Your task to perform on an android device: change the clock display to show seconds Image 0: 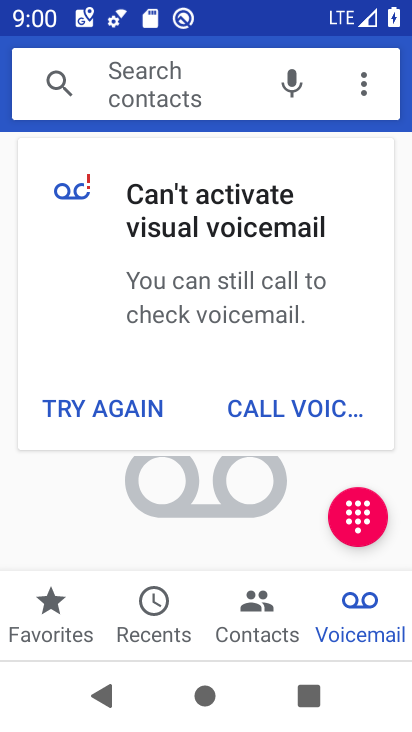
Step 0: drag from (217, 627) to (279, 90)
Your task to perform on an android device: change the clock display to show seconds Image 1: 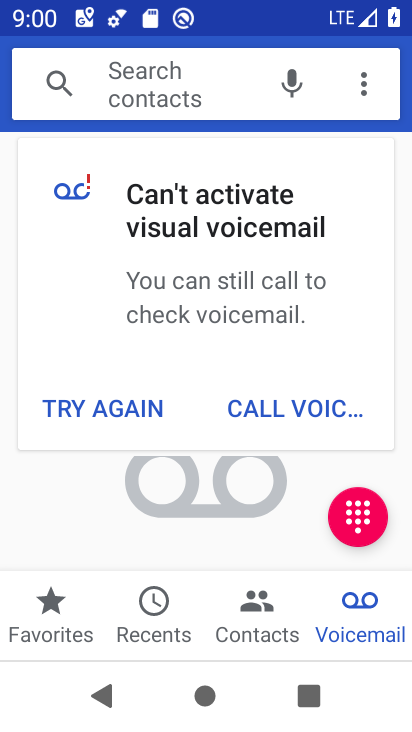
Step 1: press home button
Your task to perform on an android device: change the clock display to show seconds Image 2: 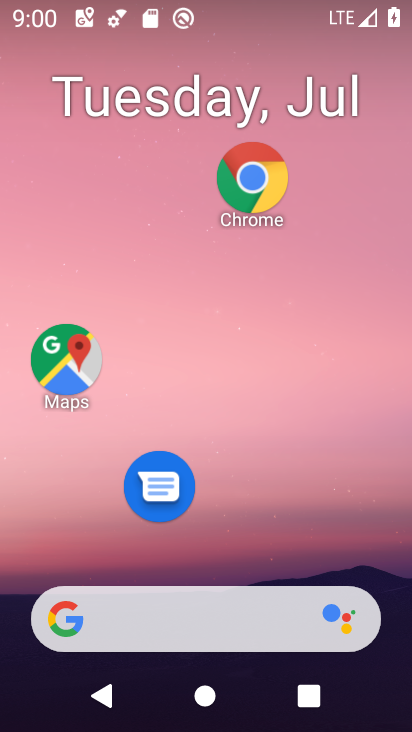
Step 2: drag from (366, 117) to (326, 13)
Your task to perform on an android device: change the clock display to show seconds Image 3: 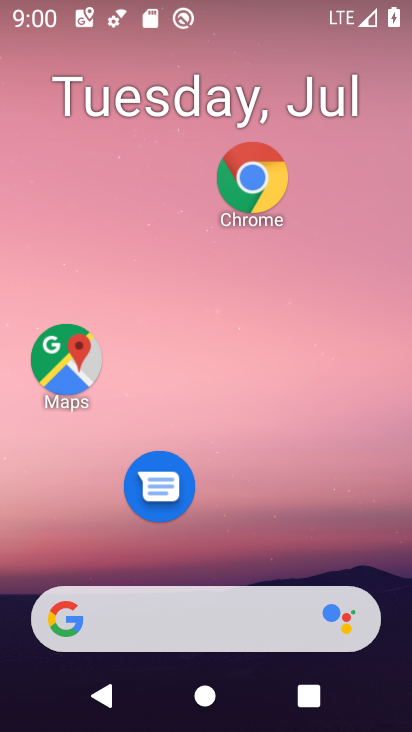
Step 3: drag from (142, 494) to (332, 9)
Your task to perform on an android device: change the clock display to show seconds Image 4: 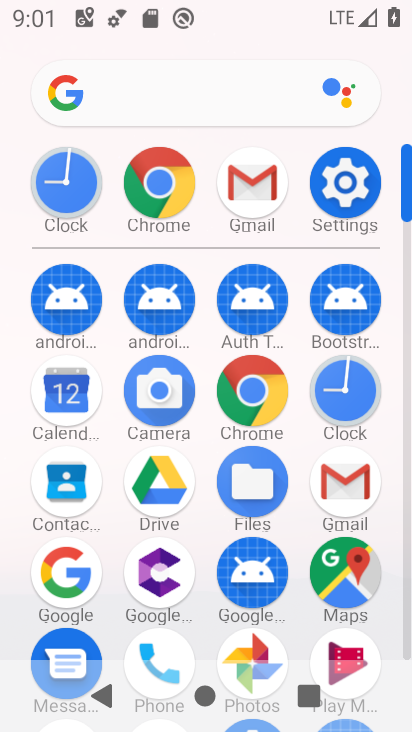
Step 4: drag from (246, 547) to (272, 105)
Your task to perform on an android device: change the clock display to show seconds Image 5: 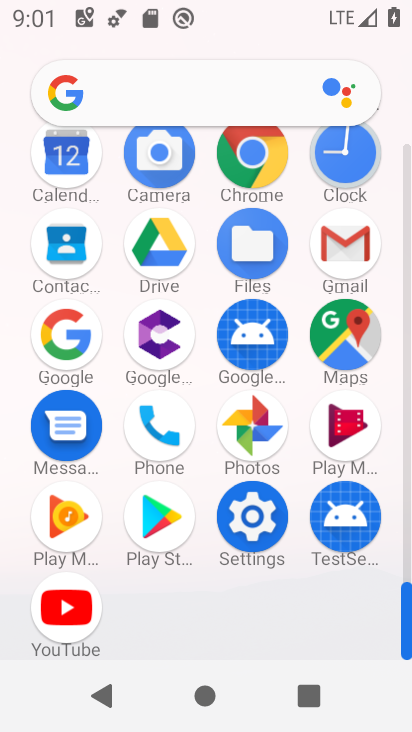
Step 5: click (335, 163)
Your task to perform on an android device: change the clock display to show seconds Image 6: 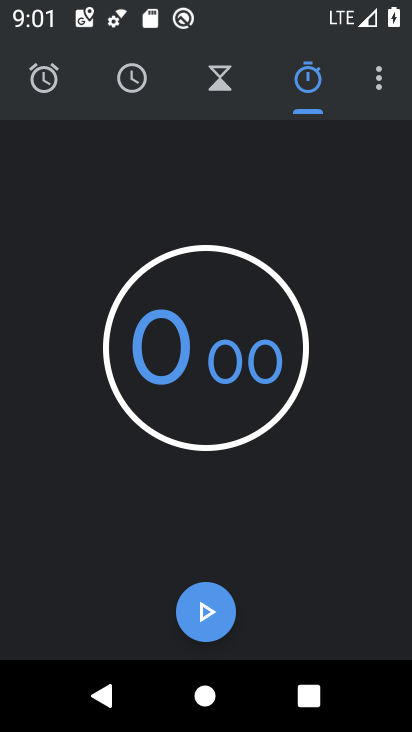
Step 6: click (383, 93)
Your task to perform on an android device: change the clock display to show seconds Image 7: 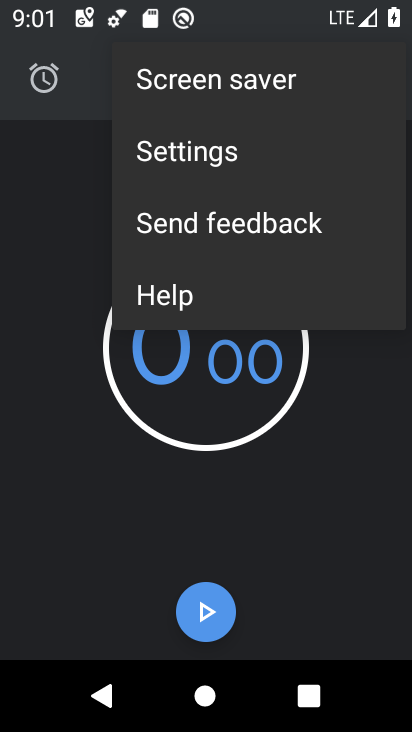
Step 7: click (246, 171)
Your task to perform on an android device: change the clock display to show seconds Image 8: 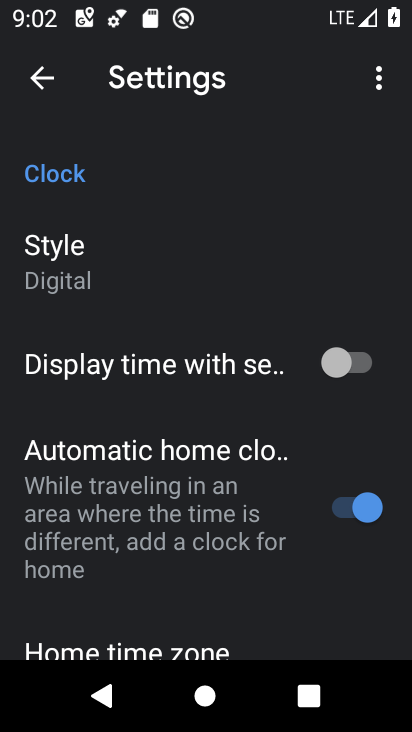
Step 8: click (181, 394)
Your task to perform on an android device: change the clock display to show seconds Image 9: 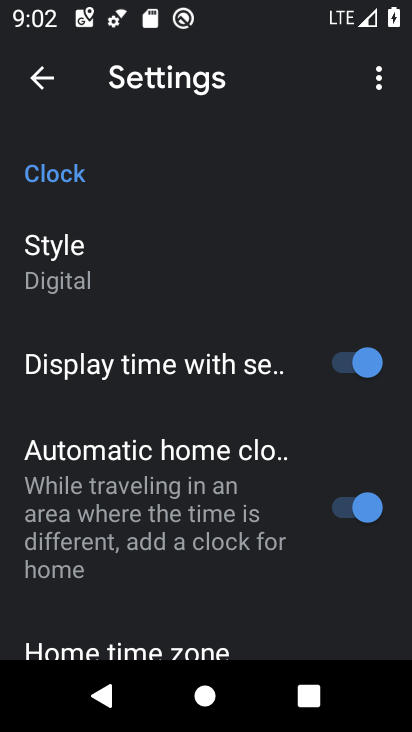
Step 9: task complete